Your task to perform on an android device: Open wifi settings Image 0: 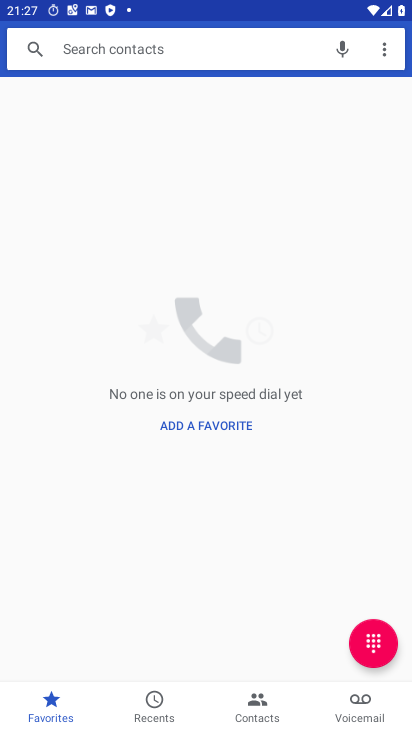
Step 0: press home button
Your task to perform on an android device: Open wifi settings Image 1: 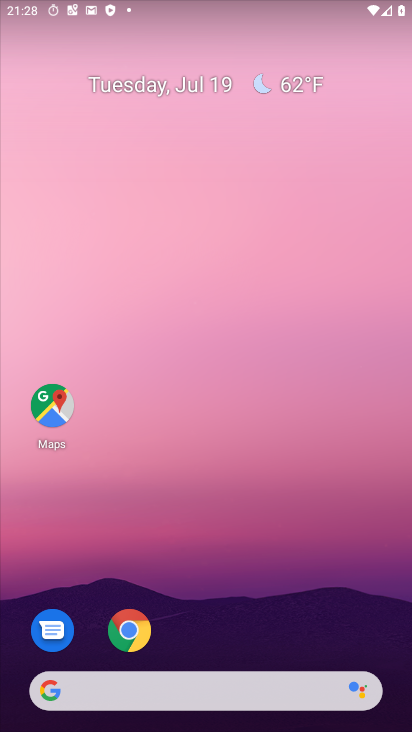
Step 1: drag from (29, 711) to (311, 35)
Your task to perform on an android device: Open wifi settings Image 2: 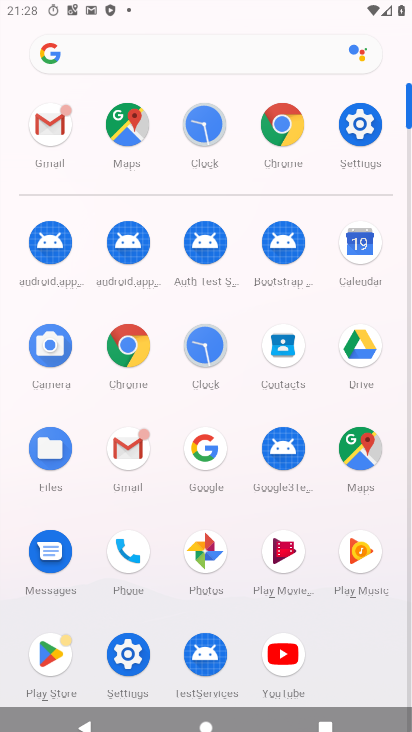
Step 2: click (136, 656)
Your task to perform on an android device: Open wifi settings Image 3: 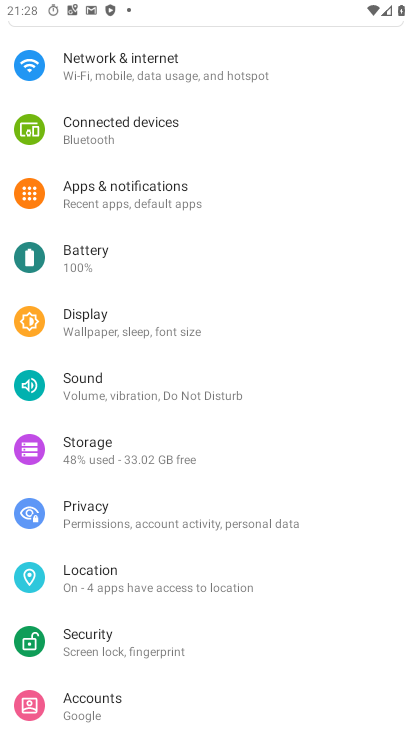
Step 3: click (159, 82)
Your task to perform on an android device: Open wifi settings Image 4: 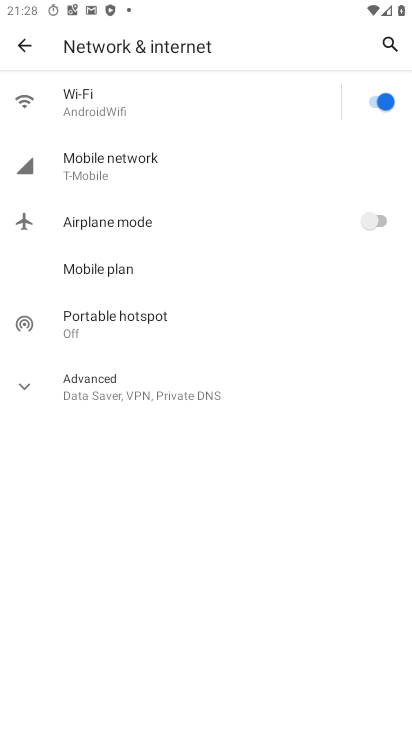
Step 4: task complete